Your task to perform on an android device: change the upload size in google photos Image 0: 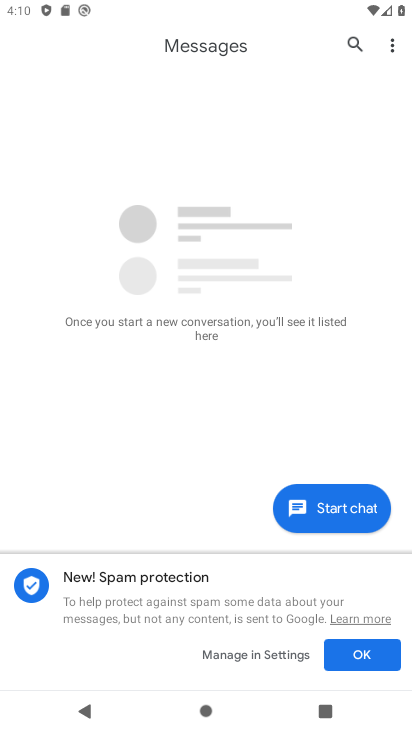
Step 0: press home button
Your task to perform on an android device: change the upload size in google photos Image 1: 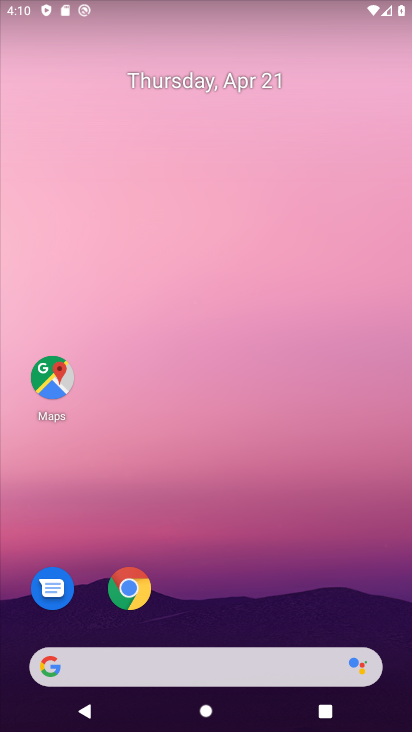
Step 1: drag from (190, 573) to (211, 156)
Your task to perform on an android device: change the upload size in google photos Image 2: 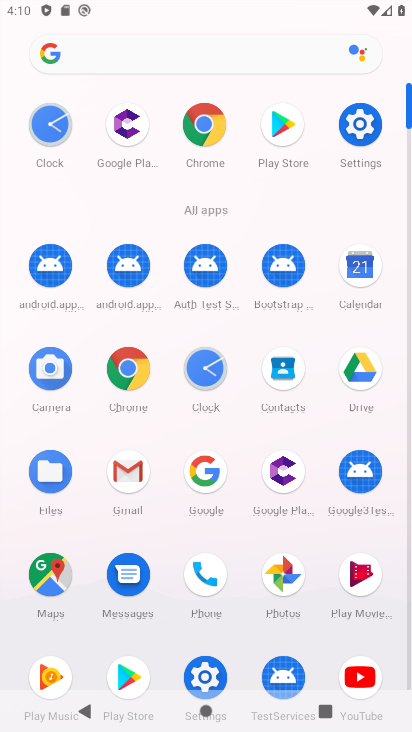
Step 2: click (284, 586)
Your task to perform on an android device: change the upload size in google photos Image 3: 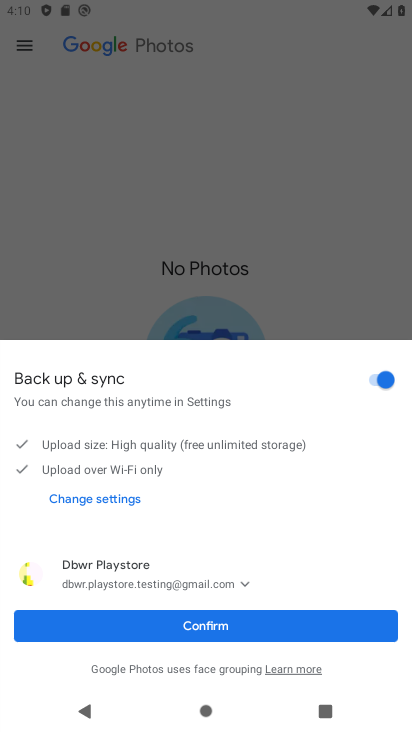
Step 3: click (314, 632)
Your task to perform on an android device: change the upload size in google photos Image 4: 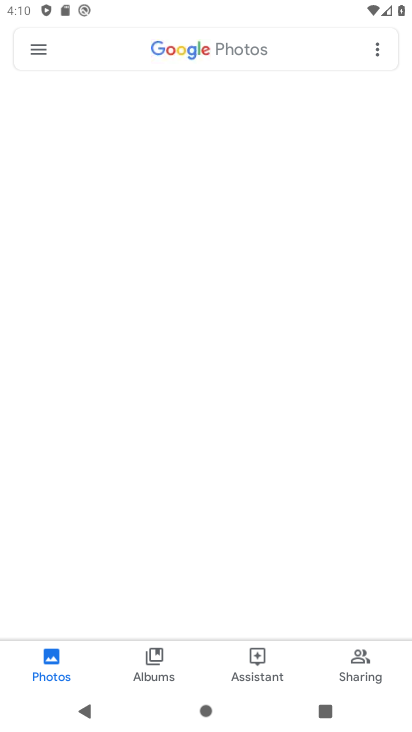
Step 4: click (21, 44)
Your task to perform on an android device: change the upload size in google photos Image 5: 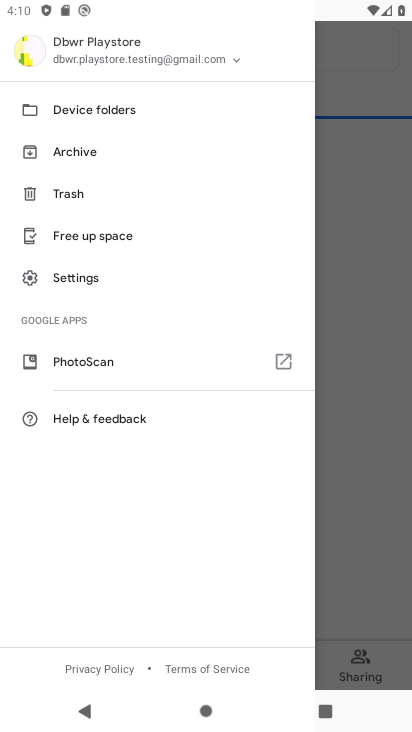
Step 5: click (88, 279)
Your task to perform on an android device: change the upload size in google photos Image 6: 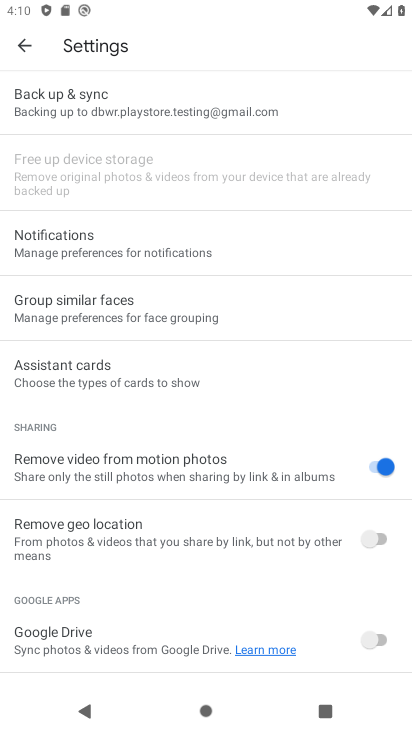
Step 6: drag from (98, 622) to (141, 669)
Your task to perform on an android device: change the upload size in google photos Image 7: 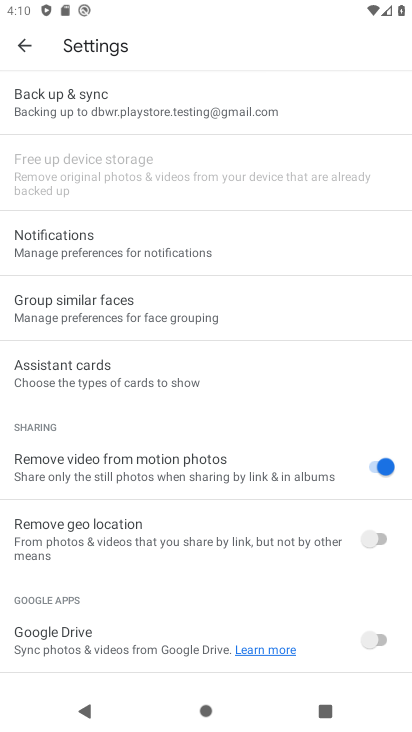
Step 7: click (123, 120)
Your task to perform on an android device: change the upload size in google photos Image 8: 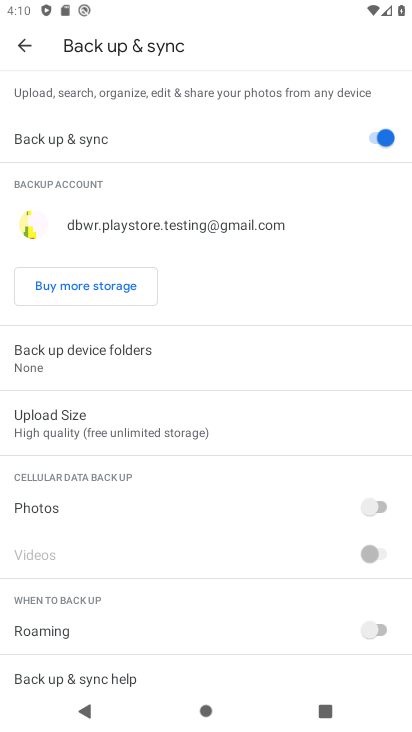
Step 8: click (100, 425)
Your task to perform on an android device: change the upload size in google photos Image 9: 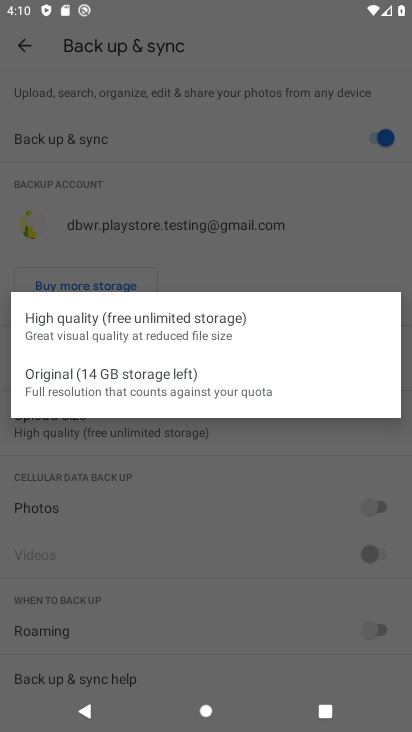
Step 9: click (106, 373)
Your task to perform on an android device: change the upload size in google photos Image 10: 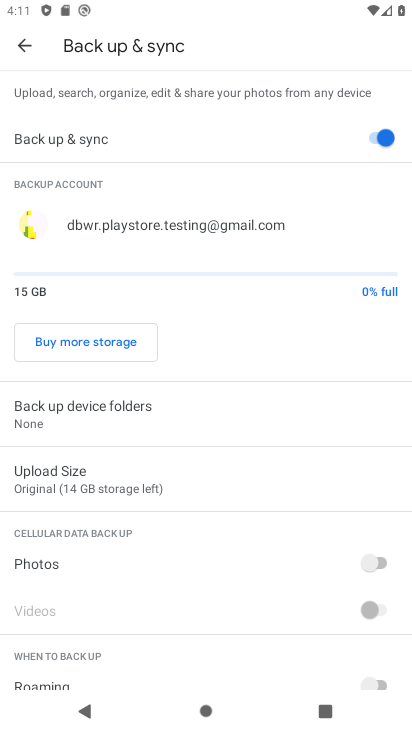
Step 10: task complete